Your task to perform on an android device: install app "Messages" Image 0: 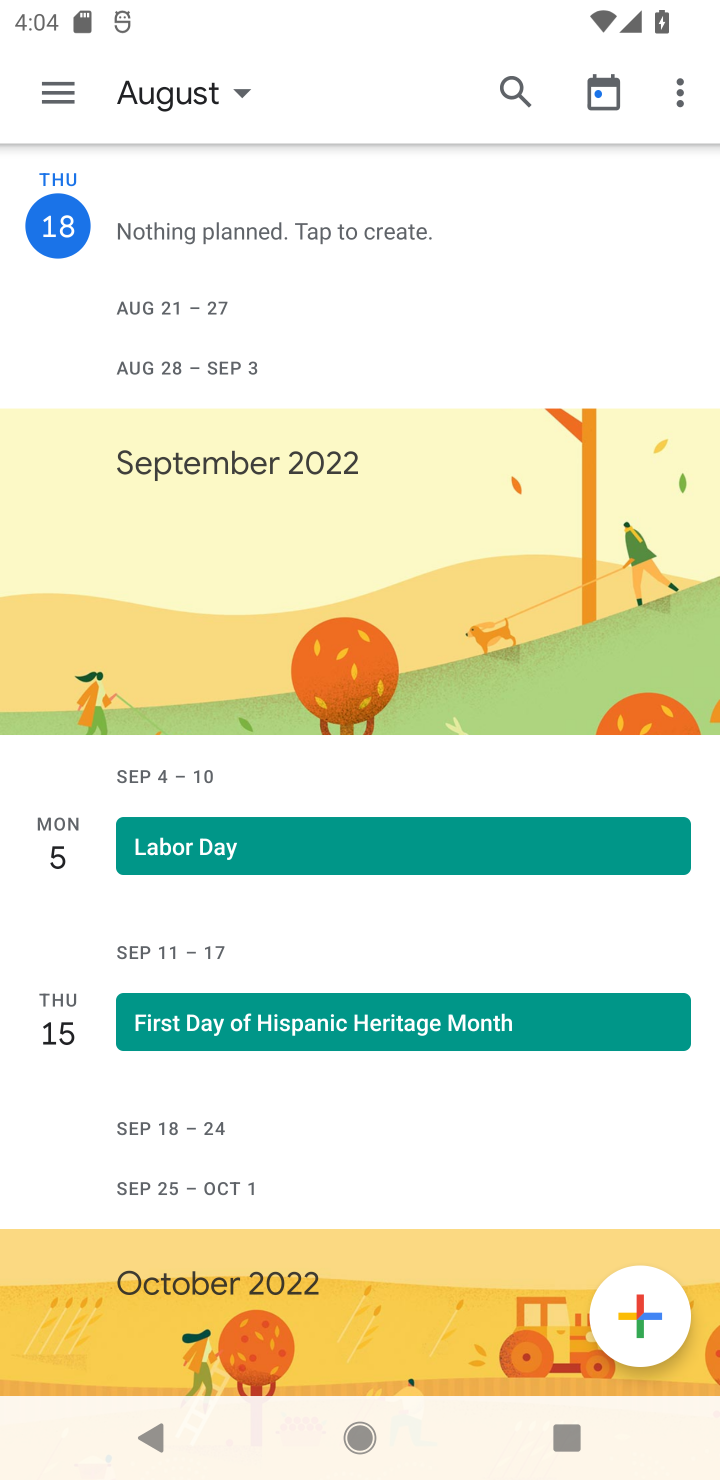
Step 0: press home button
Your task to perform on an android device: install app "Messages" Image 1: 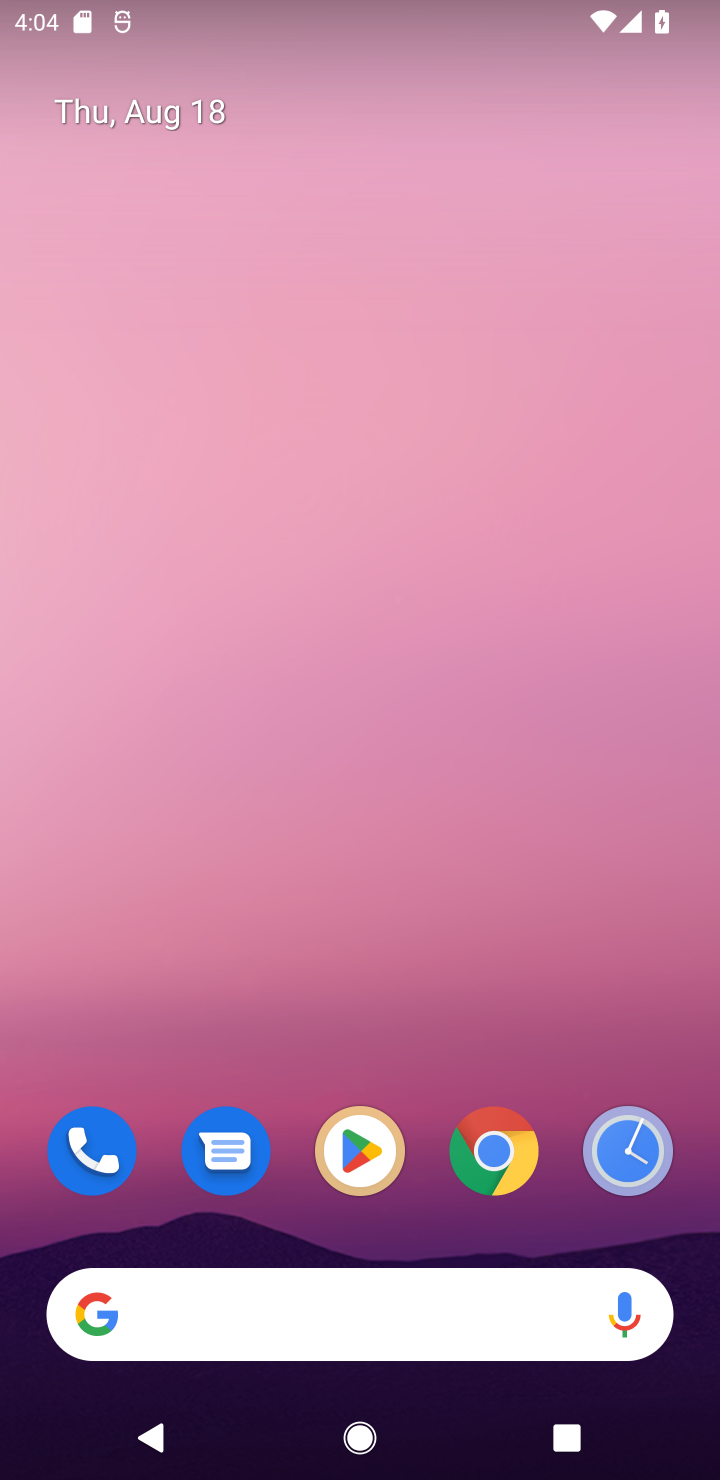
Step 1: click (356, 1114)
Your task to perform on an android device: install app "Messages" Image 2: 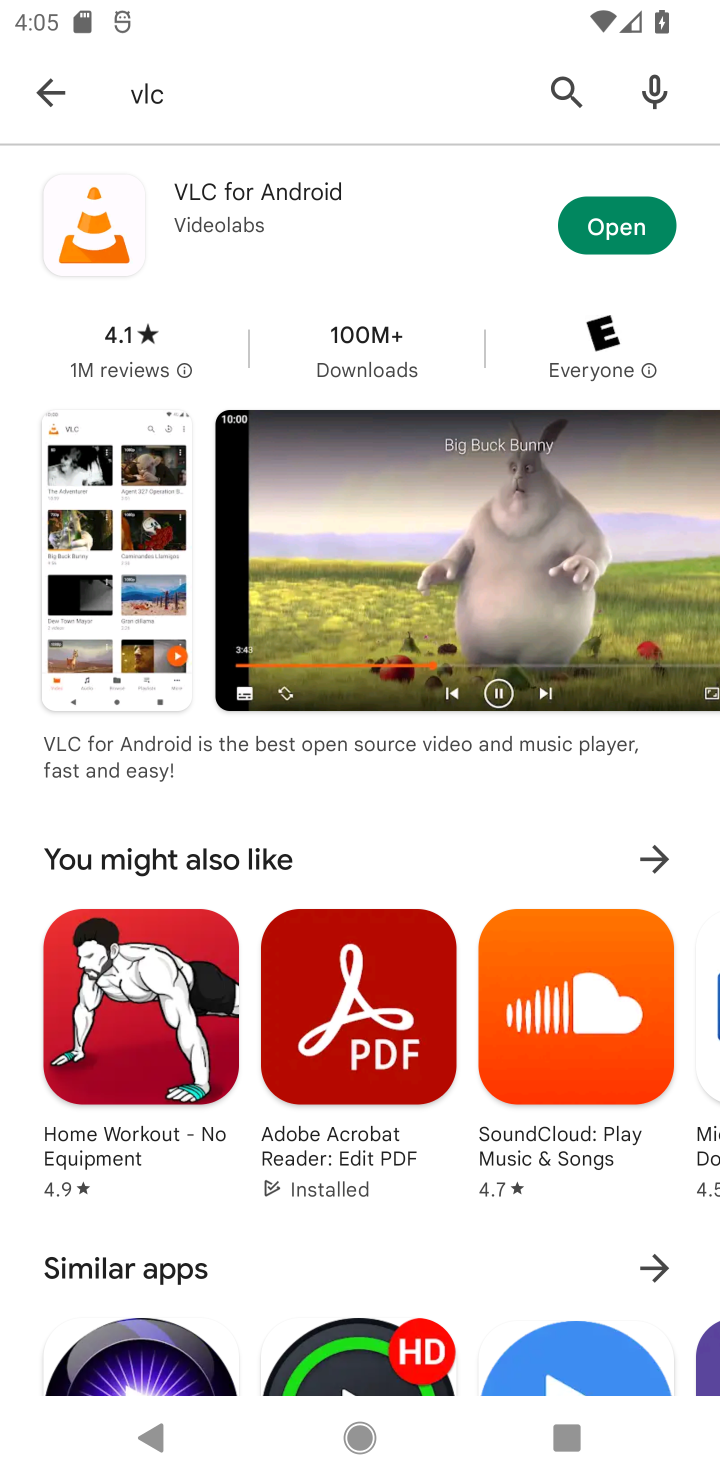
Step 2: click (587, 93)
Your task to perform on an android device: install app "Messages" Image 3: 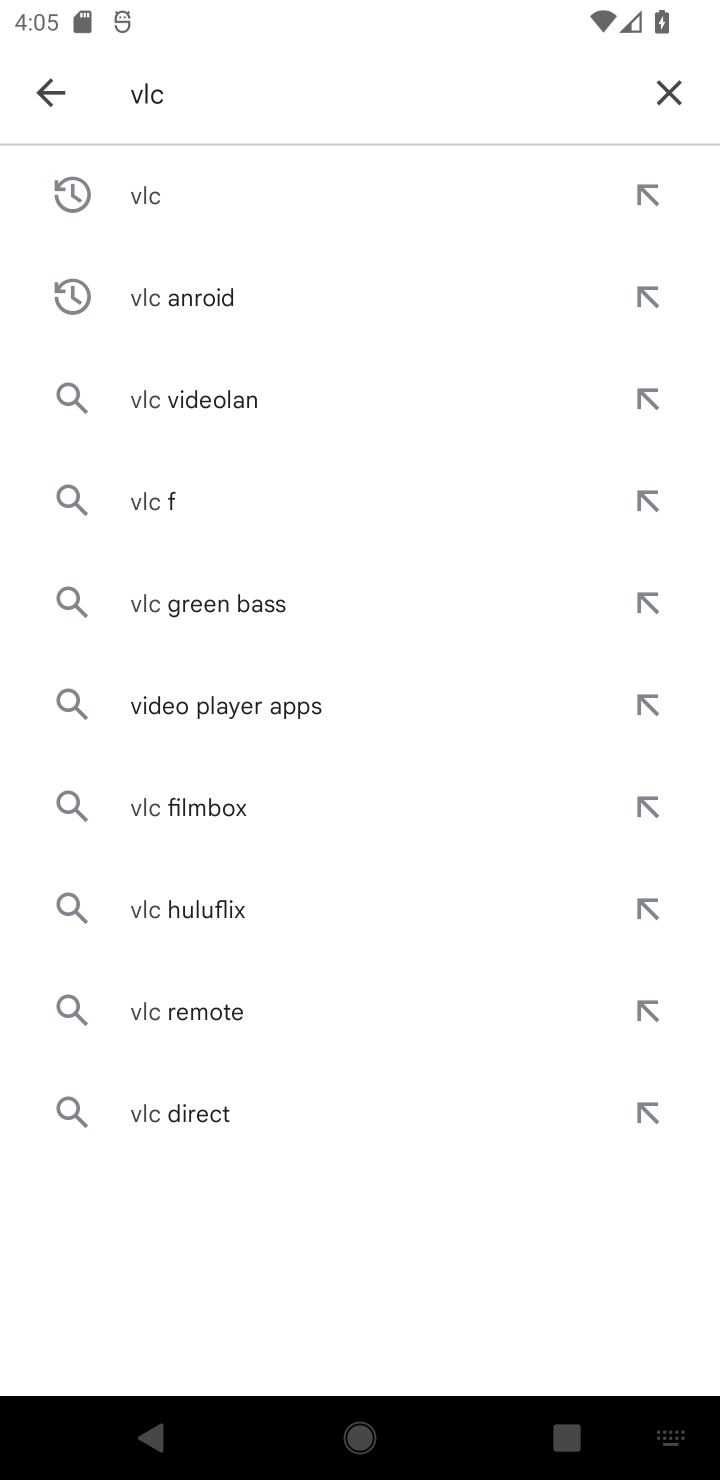
Step 3: click (655, 94)
Your task to perform on an android device: install app "Messages" Image 4: 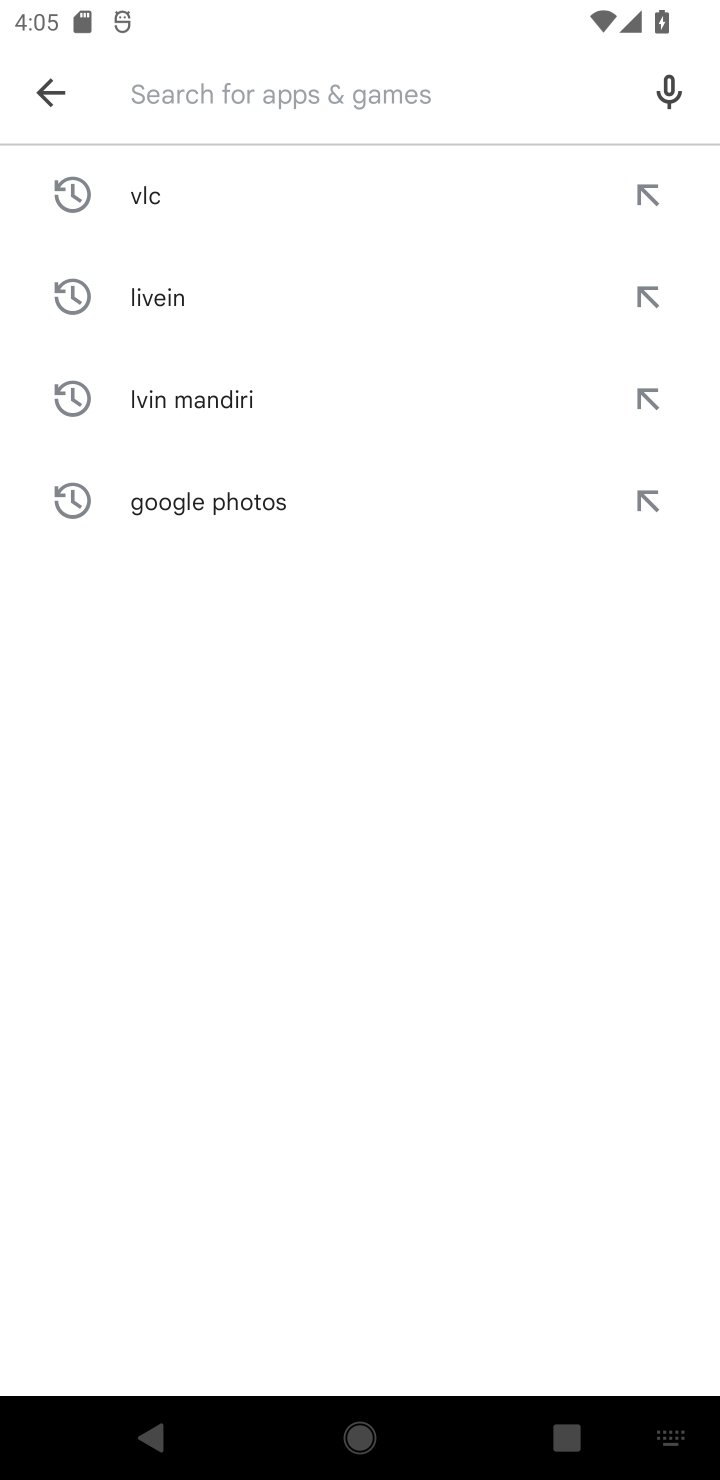
Step 4: type "MESSAGES"
Your task to perform on an android device: install app "Messages" Image 5: 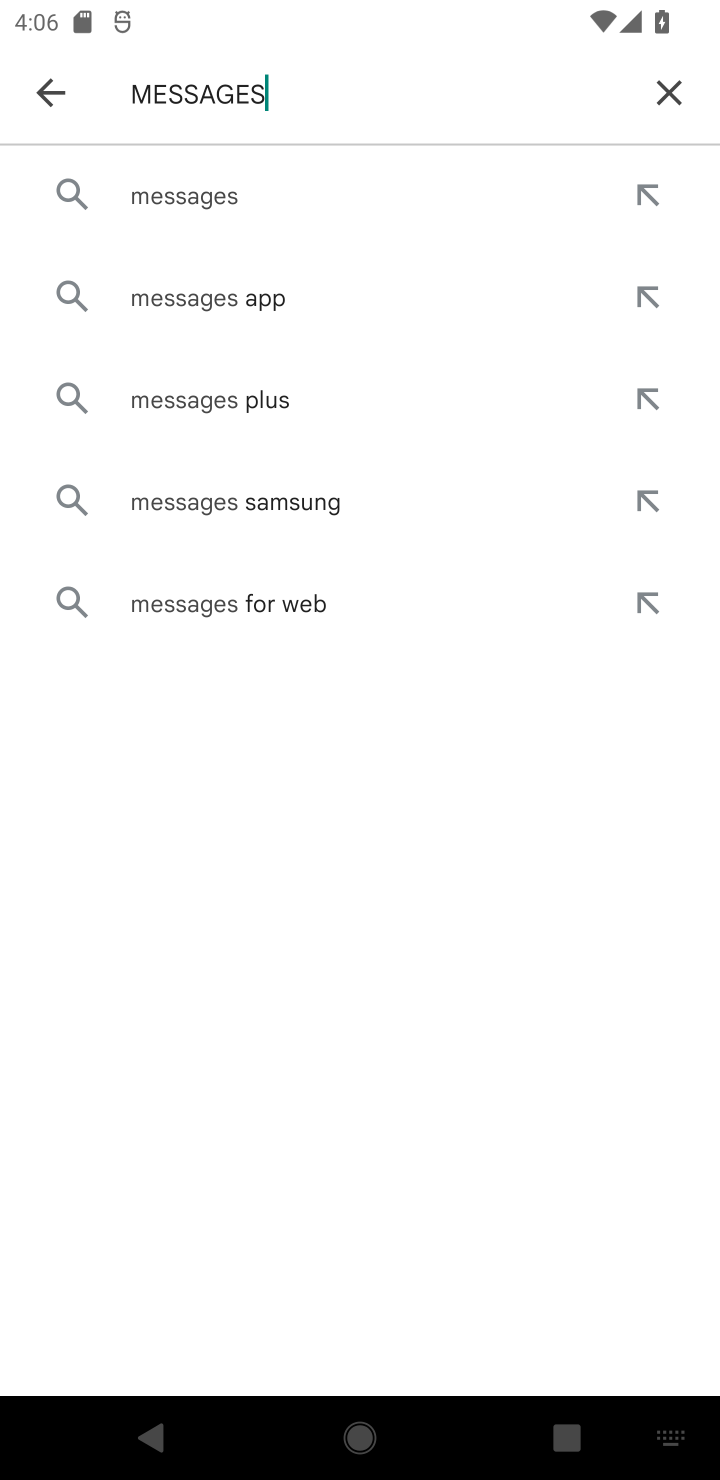
Step 5: click (409, 165)
Your task to perform on an android device: install app "Messages" Image 6: 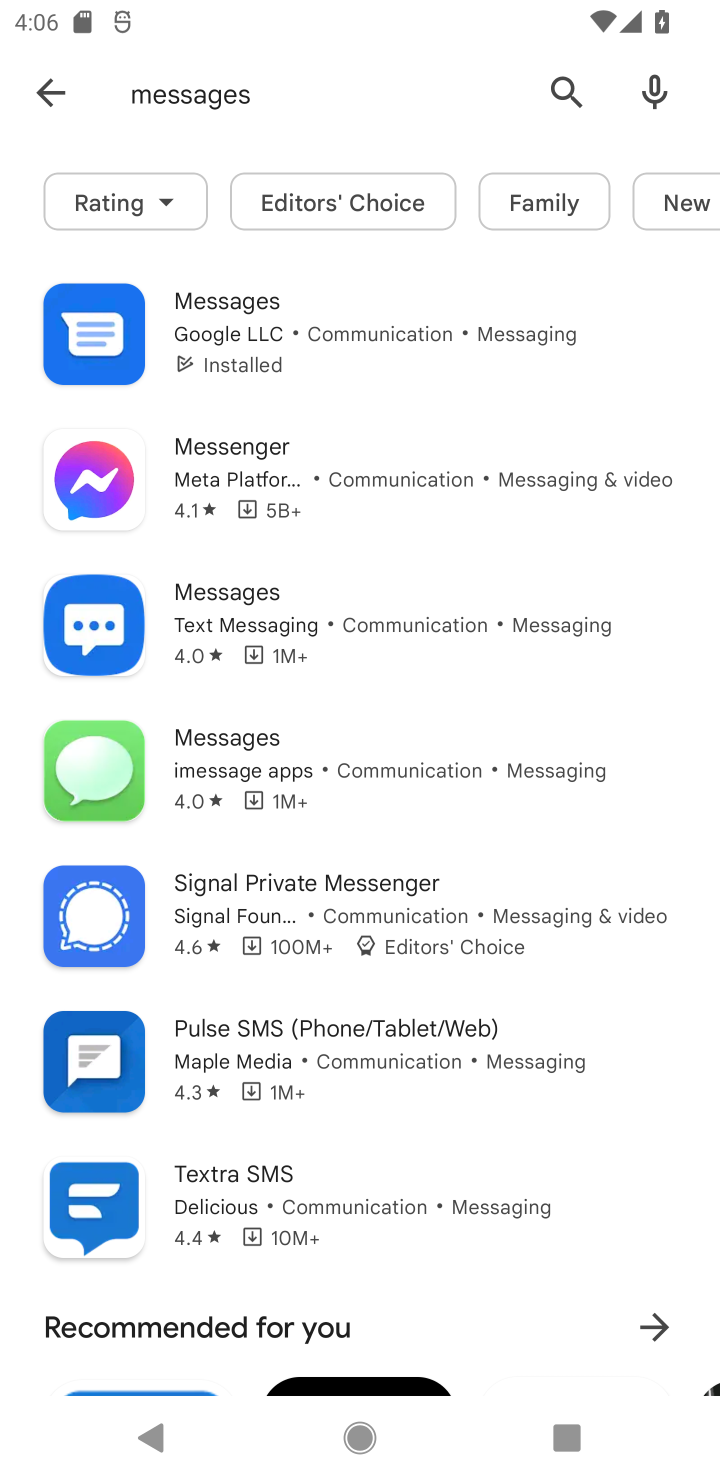
Step 6: click (421, 310)
Your task to perform on an android device: install app "Messages" Image 7: 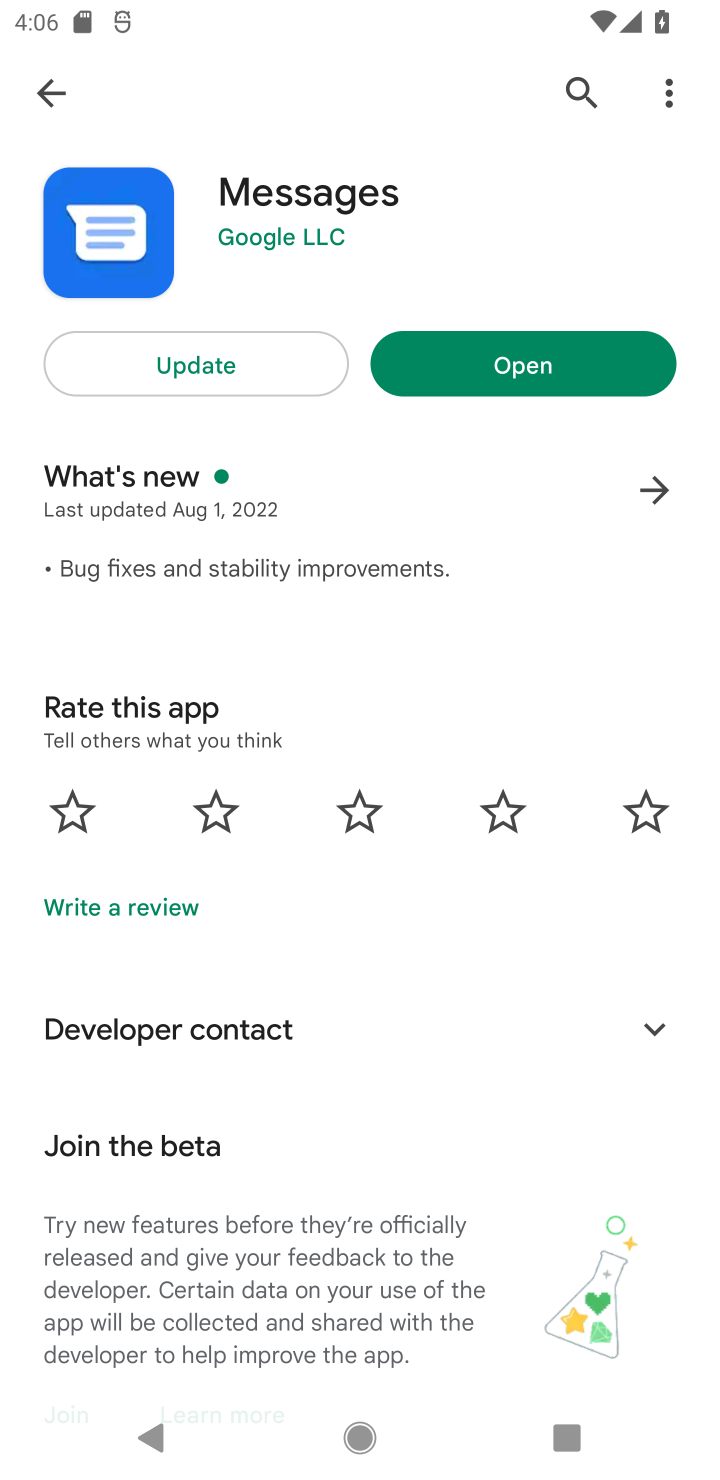
Step 7: click (530, 368)
Your task to perform on an android device: install app "Messages" Image 8: 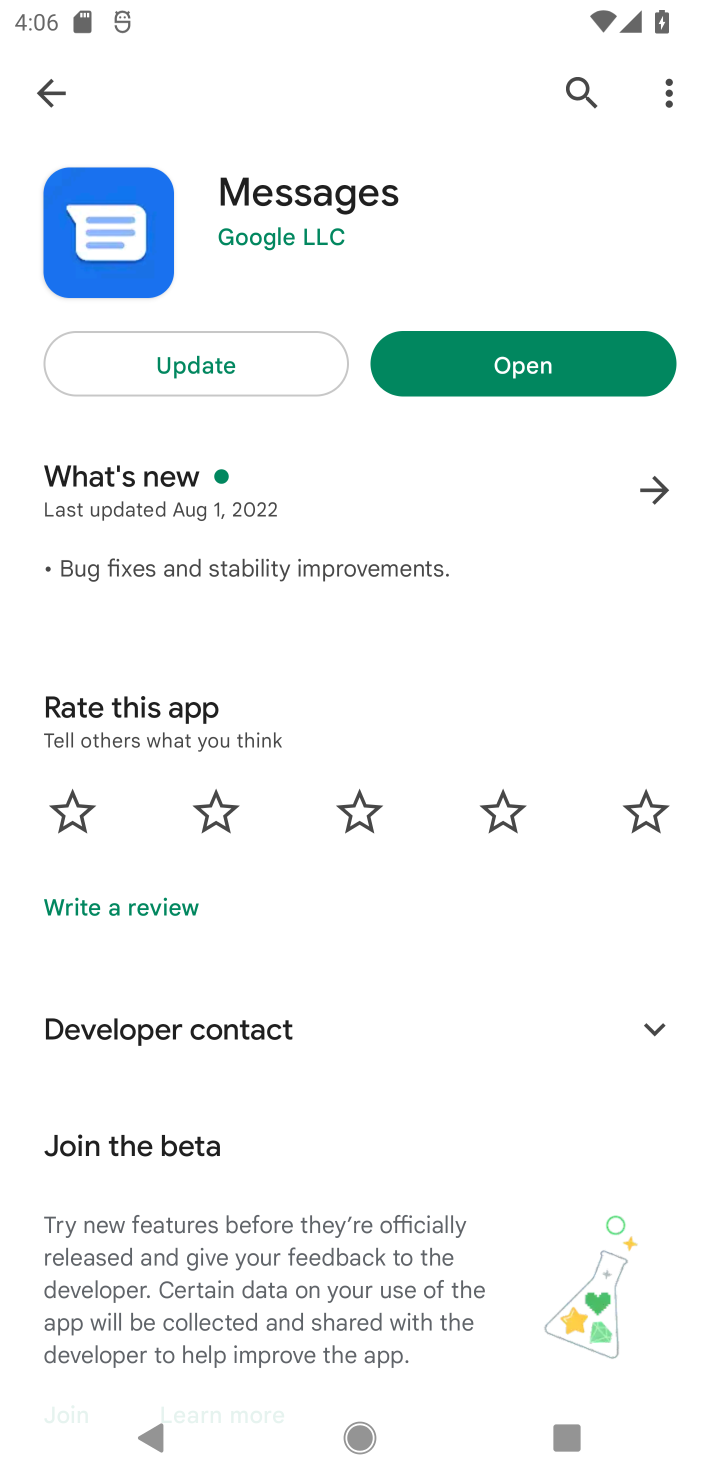
Step 8: task complete